Your task to perform on an android device: Turn on the flashlight Image 0: 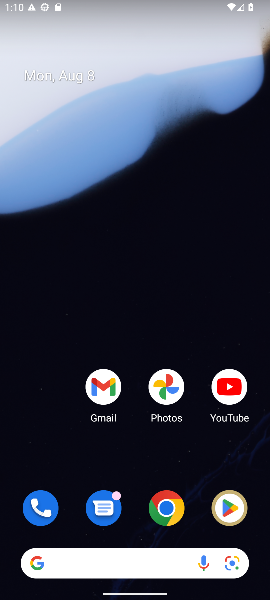
Step 0: drag from (129, 434) to (221, 7)
Your task to perform on an android device: Turn on the flashlight Image 1: 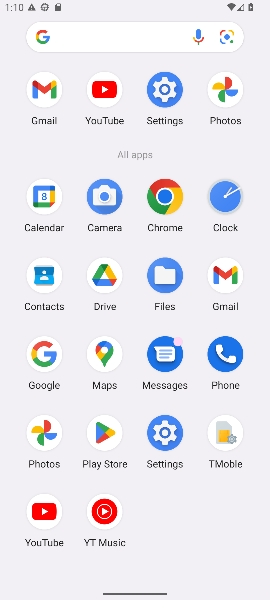
Step 1: task complete